Your task to perform on an android device: Open eBay Image 0: 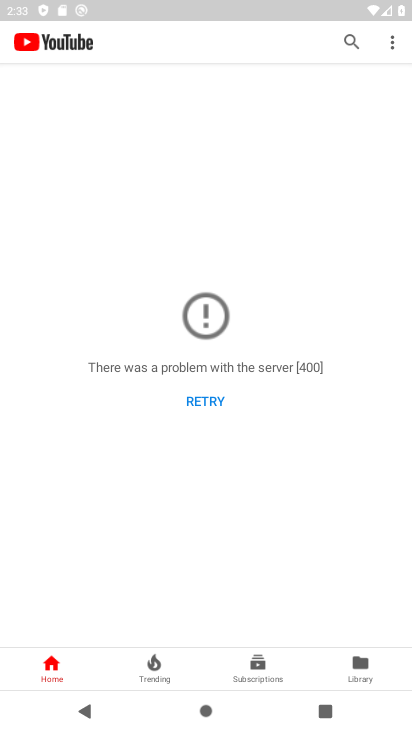
Step 0: press home button
Your task to perform on an android device: Open eBay Image 1: 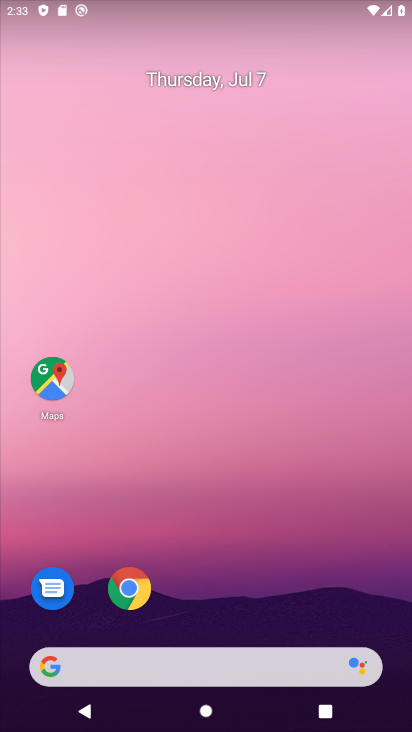
Step 1: click (127, 584)
Your task to perform on an android device: Open eBay Image 2: 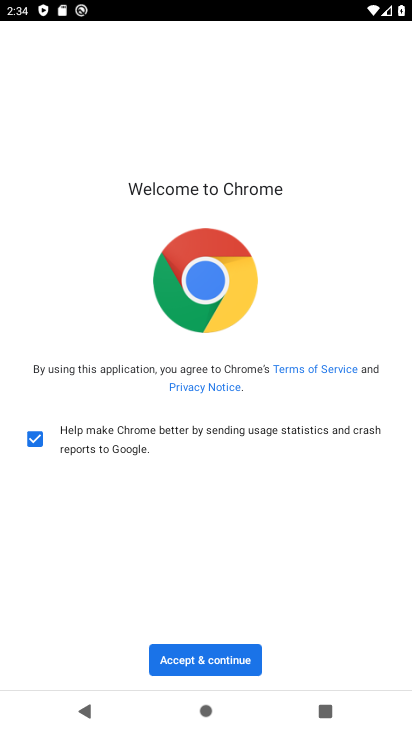
Step 2: click (190, 654)
Your task to perform on an android device: Open eBay Image 3: 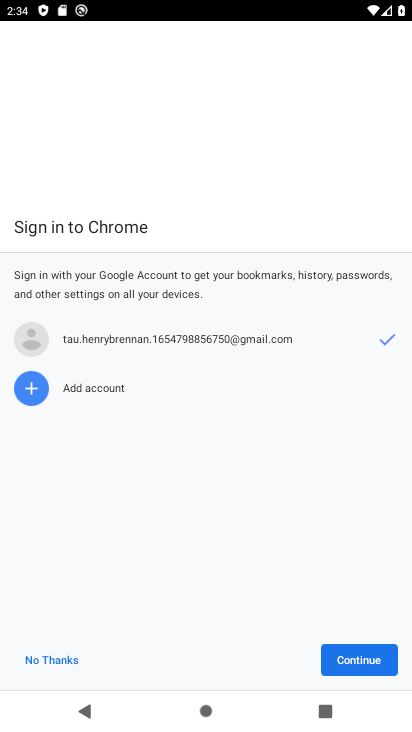
Step 3: click (354, 663)
Your task to perform on an android device: Open eBay Image 4: 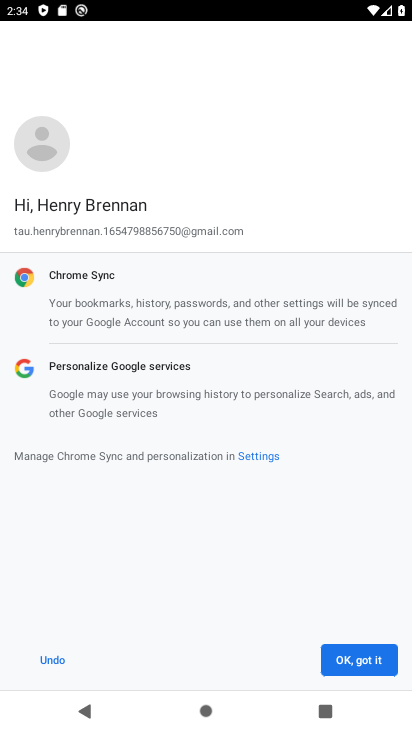
Step 4: click (354, 663)
Your task to perform on an android device: Open eBay Image 5: 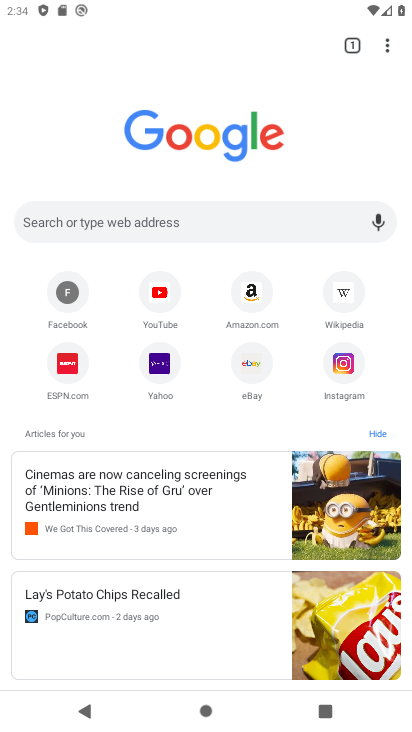
Step 5: click (250, 358)
Your task to perform on an android device: Open eBay Image 6: 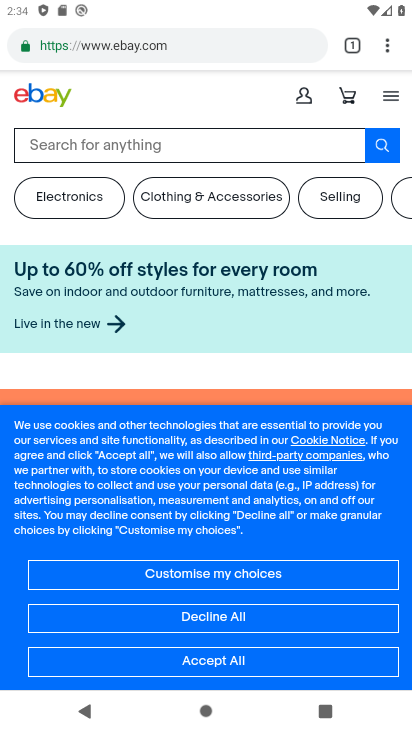
Step 6: task complete